Your task to perform on an android device: change text size in settings app Image 0: 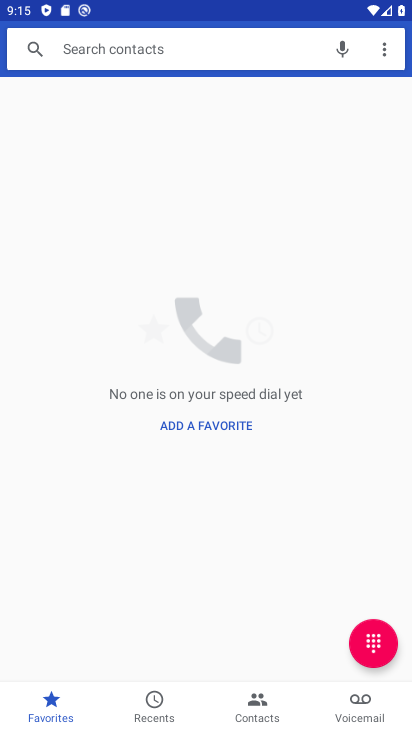
Step 0: press home button
Your task to perform on an android device: change text size in settings app Image 1: 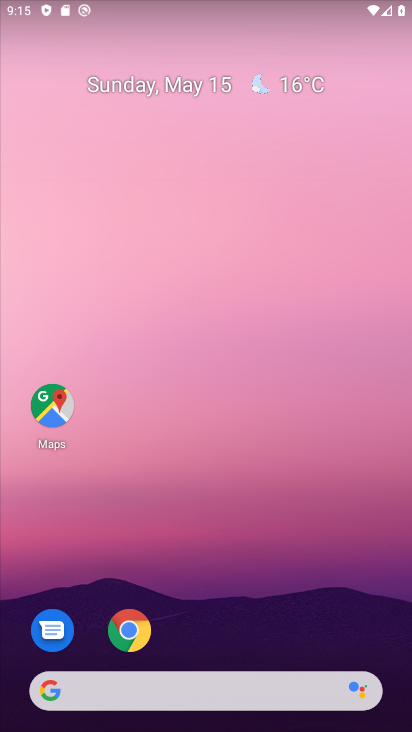
Step 1: drag from (210, 648) to (210, 195)
Your task to perform on an android device: change text size in settings app Image 2: 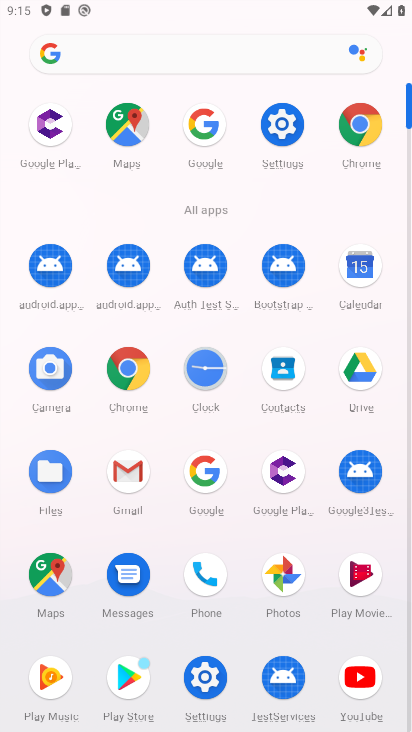
Step 2: click (274, 136)
Your task to perform on an android device: change text size in settings app Image 3: 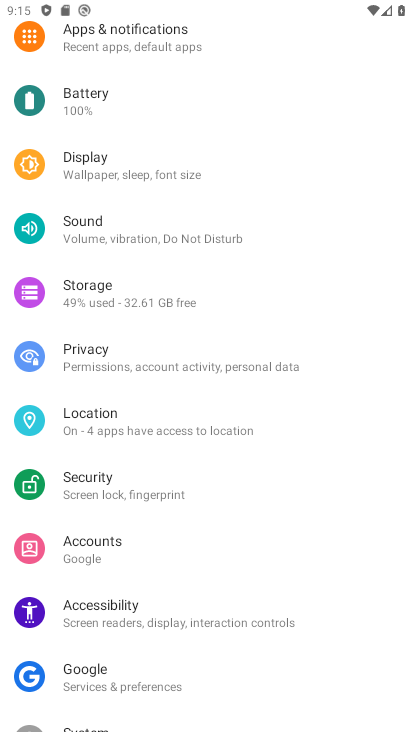
Step 3: click (212, 534)
Your task to perform on an android device: change text size in settings app Image 4: 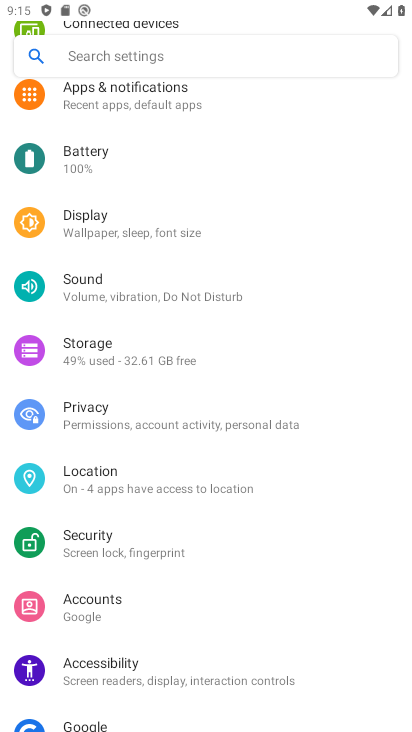
Step 4: drag from (202, 276) to (220, 466)
Your task to perform on an android device: change text size in settings app Image 5: 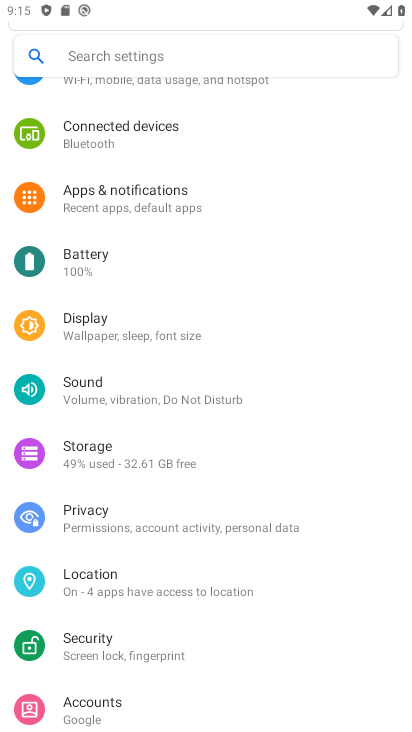
Step 5: click (126, 331)
Your task to perform on an android device: change text size in settings app Image 6: 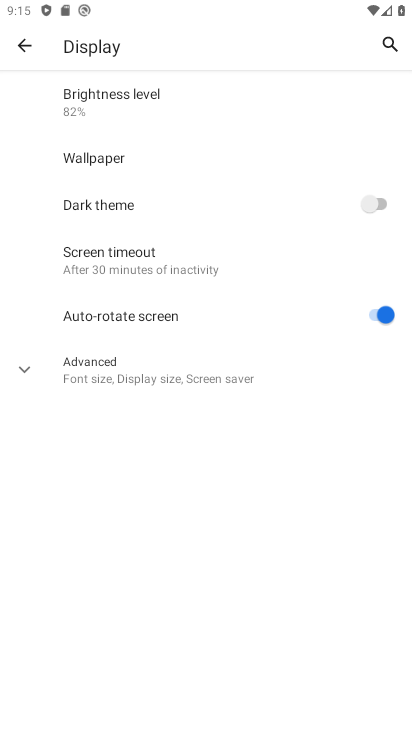
Step 6: click (105, 383)
Your task to perform on an android device: change text size in settings app Image 7: 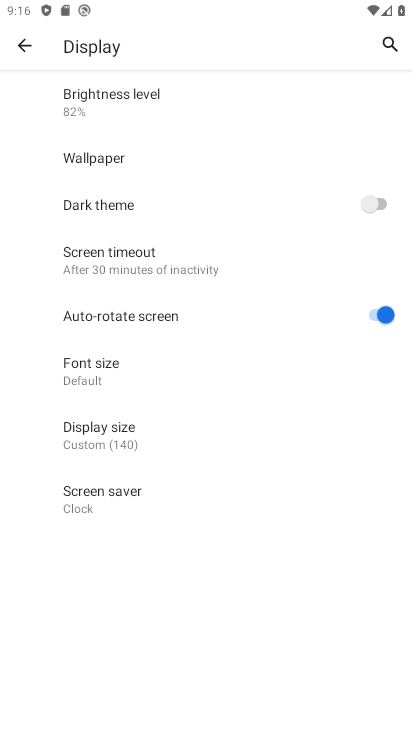
Step 7: click (128, 372)
Your task to perform on an android device: change text size in settings app Image 8: 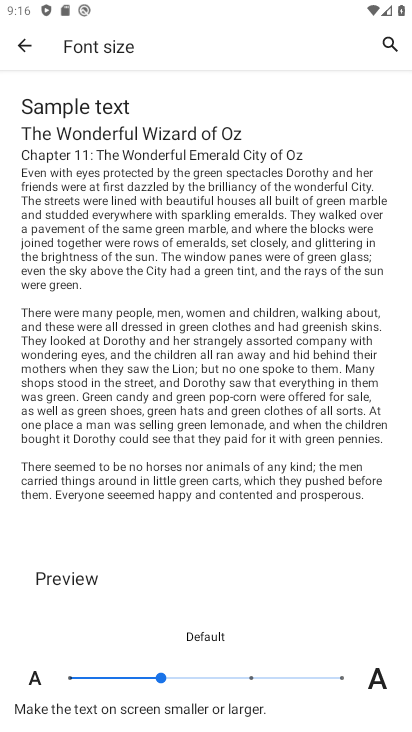
Step 8: click (67, 668)
Your task to perform on an android device: change text size in settings app Image 9: 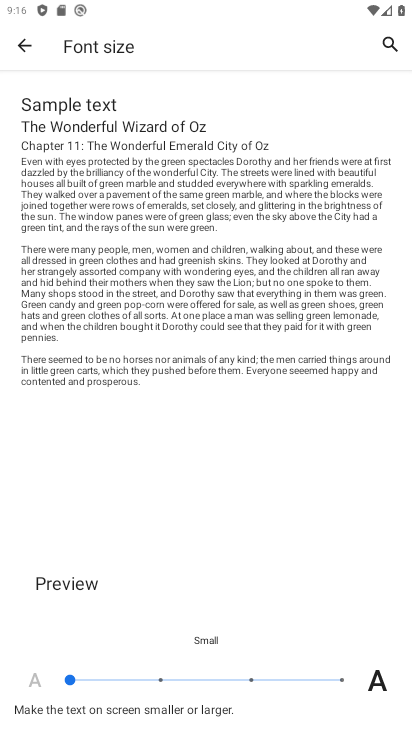
Step 9: task complete